Your task to perform on an android device: change timer sound Image 0: 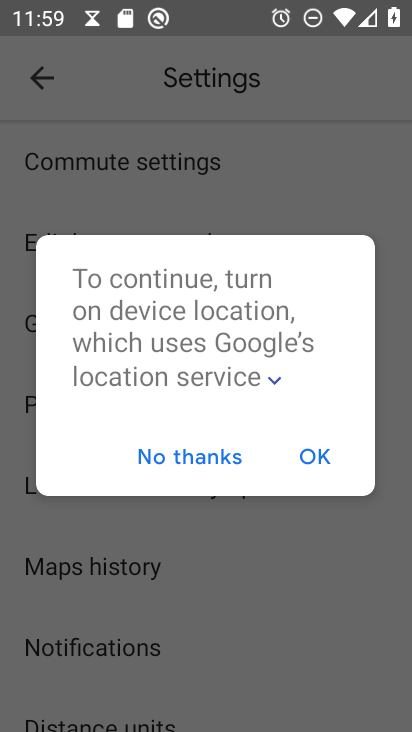
Step 0: press home button
Your task to perform on an android device: change timer sound Image 1: 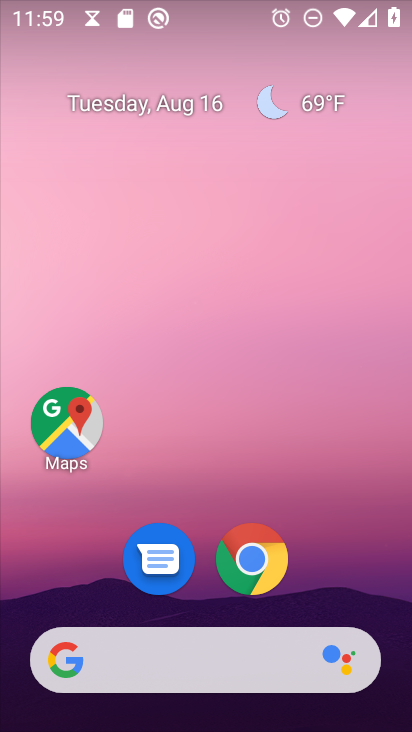
Step 1: drag from (175, 669) to (246, 103)
Your task to perform on an android device: change timer sound Image 2: 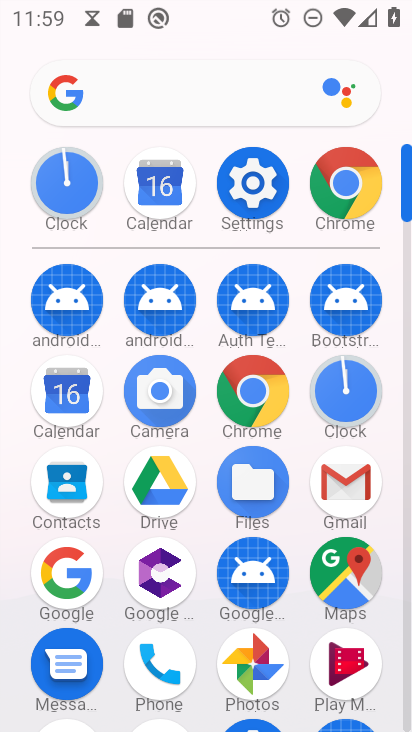
Step 2: click (67, 183)
Your task to perform on an android device: change timer sound Image 3: 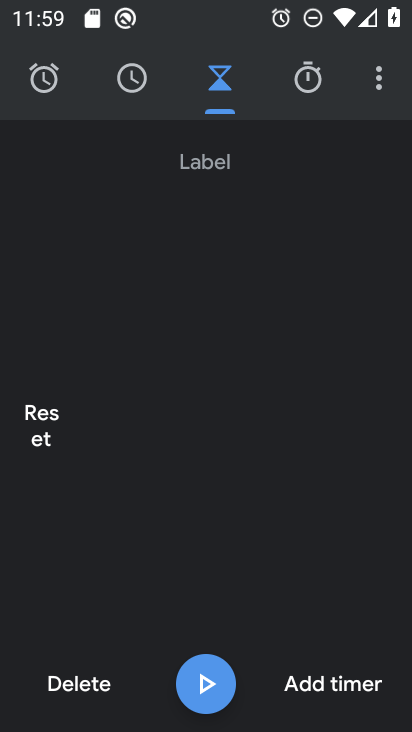
Step 3: click (389, 82)
Your task to perform on an android device: change timer sound Image 4: 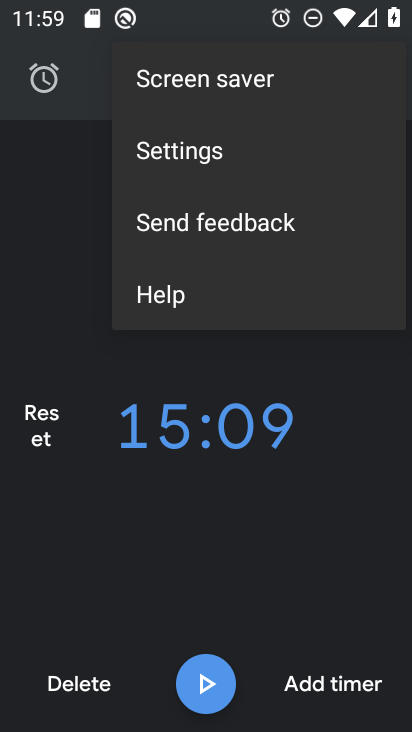
Step 4: click (205, 152)
Your task to perform on an android device: change timer sound Image 5: 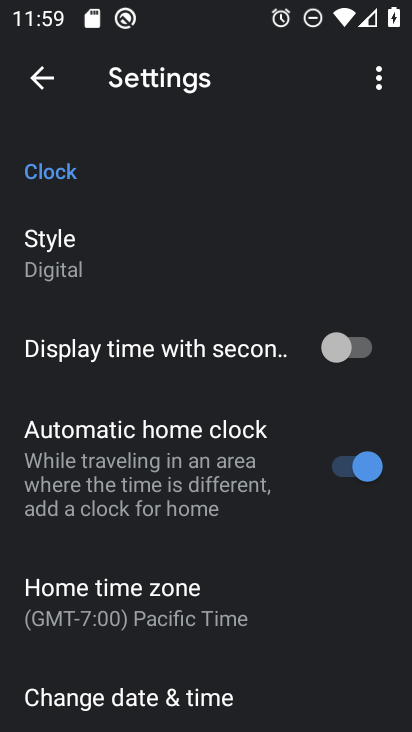
Step 5: drag from (160, 533) to (226, 410)
Your task to perform on an android device: change timer sound Image 6: 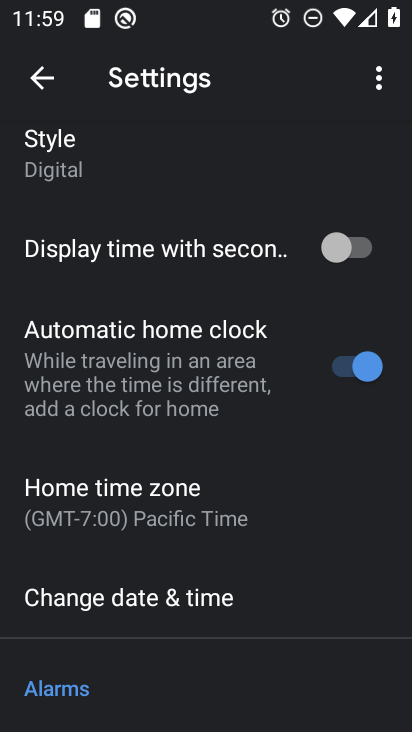
Step 6: drag from (166, 546) to (237, 432)
Your task to perform on an android device: change timer sound Image 7: 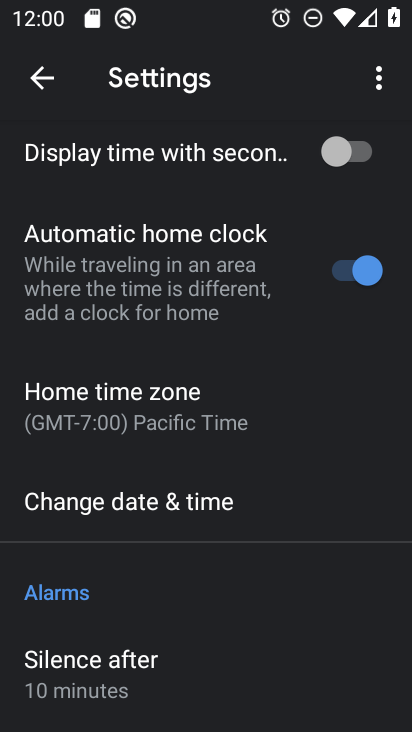
Step 7: drag from (156, 621) to (221, 499)
Your task to perform on an android device: change timer sound Image 8: 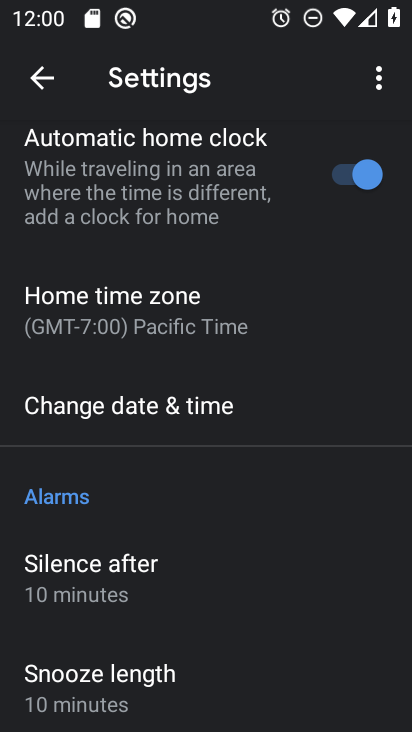
Step 8: drag from (111, 620) to (193, 486)
Your task to perform on an android device: change timer sound Image 9: 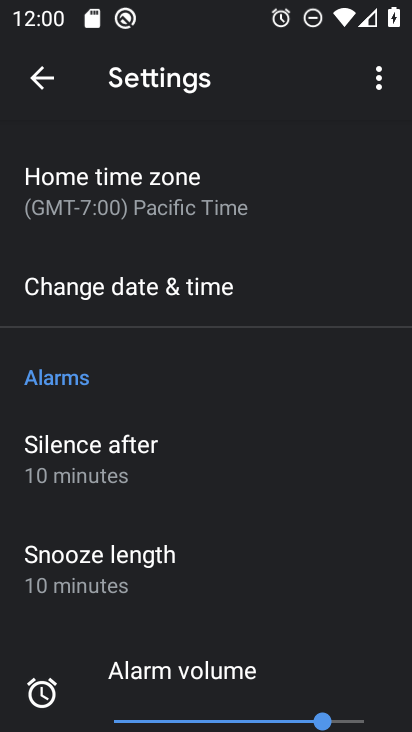
Step 9: drag from (117, 636) to (166, 469)
Your task to perform on an android device: change timer sound Image 10: 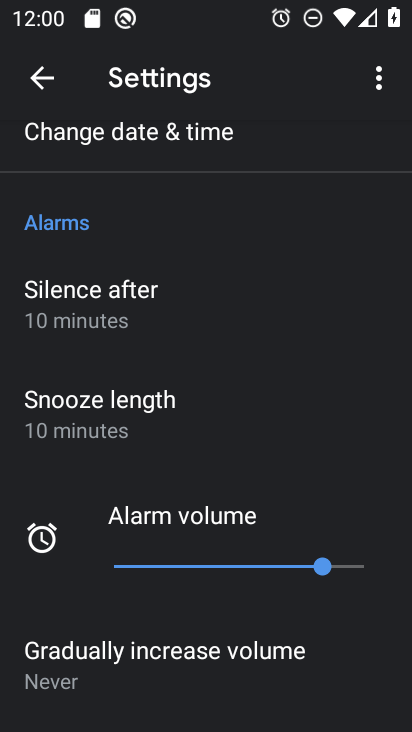
Step 10: drag from (106, 600) to (169, 455)
Your task to perform on an android device: change timer sound Image 11: 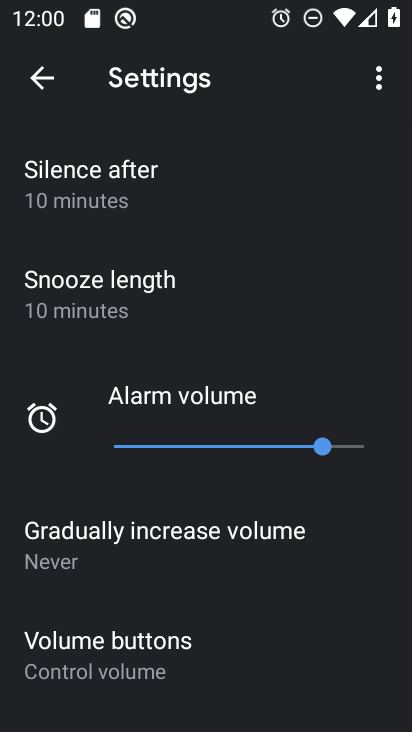
Step 11: drag from (114, 617) to (181, 441)
Your task to perform on an android device: change timer sound Image 12: 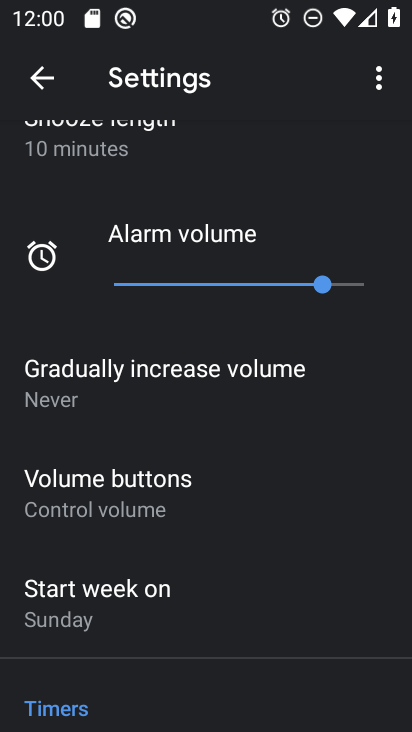
Step 12: drag from (87, 670) to (170, 506)
Your task to perform on an android device: change timer sound Image 13: 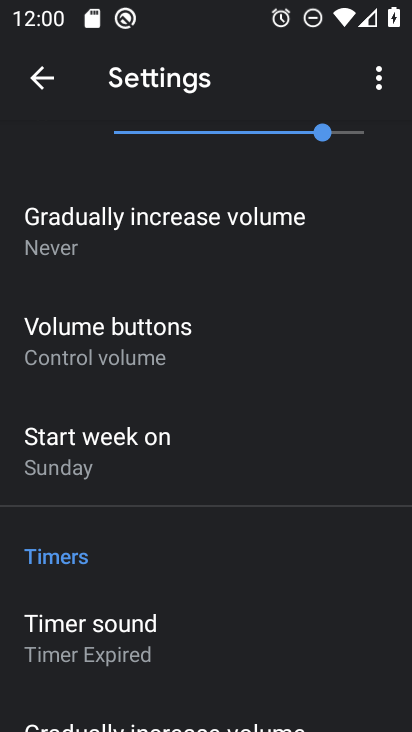
Step 13: drag from (194, 682) to (280, 525)
Your task to perform on an android device: change timer sound Image 14: 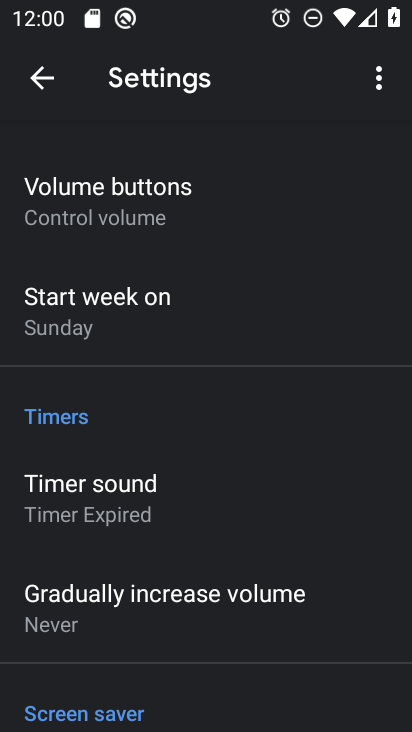
Step 14: click (107, 507)
Your task to perform on an android device: change timer sound Image 15: 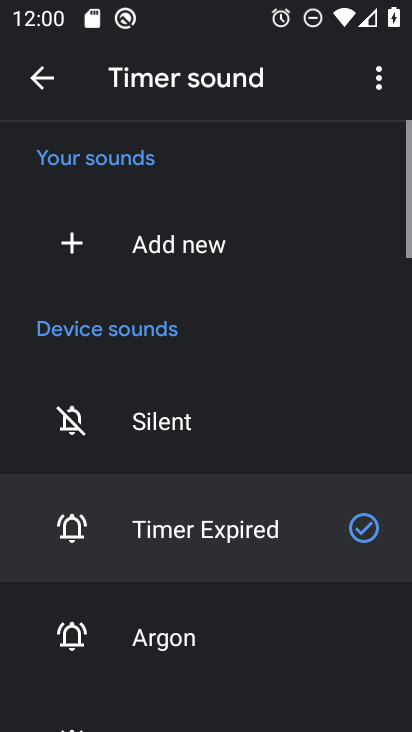
Step 15: drag from (151, 653) to (239, 401)
Your task to perform on an android device: change timer sound Image 16: 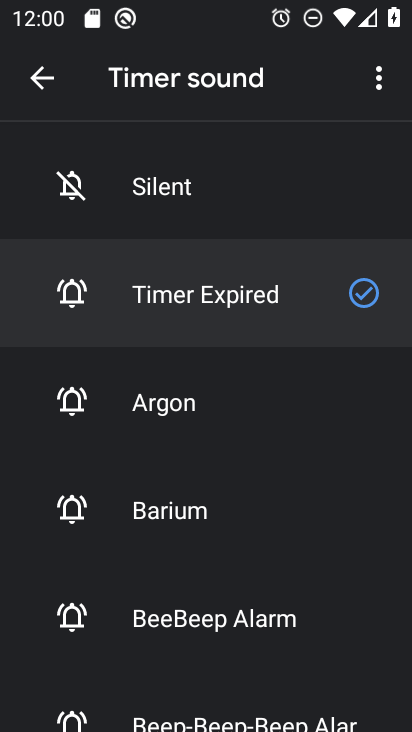
Step 16: drag from (207, 646) to (278, 397)
Your task to perform on an android device: change timer sound Image 17: 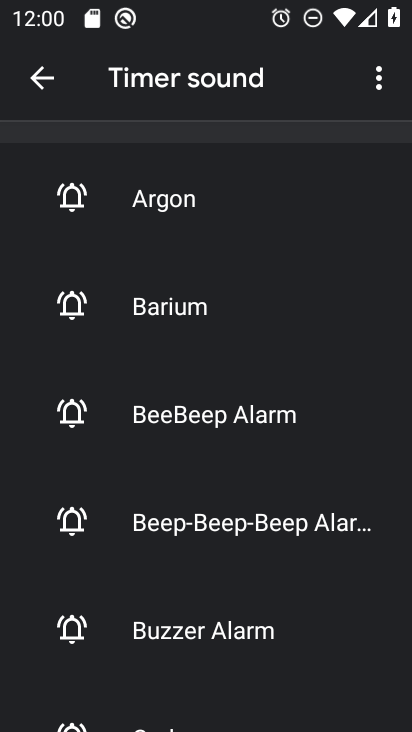
Step 17: click (267, 517)
Your task to perform on an android device: change timer sound Image 18: 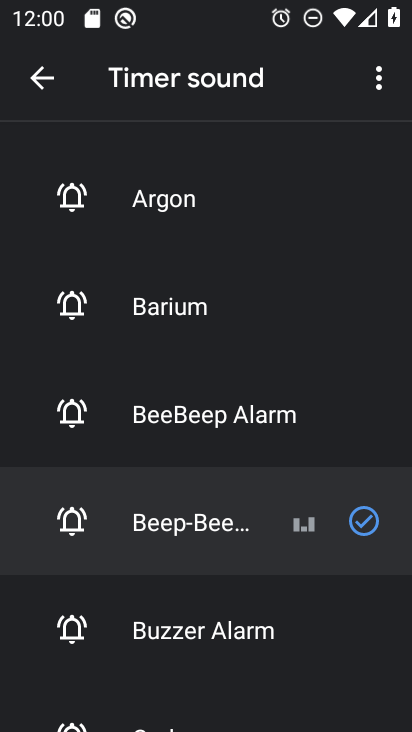
Step 18: task complete